Your task to perform on an android device: Open calendar and show me the first week of next month Image 0: 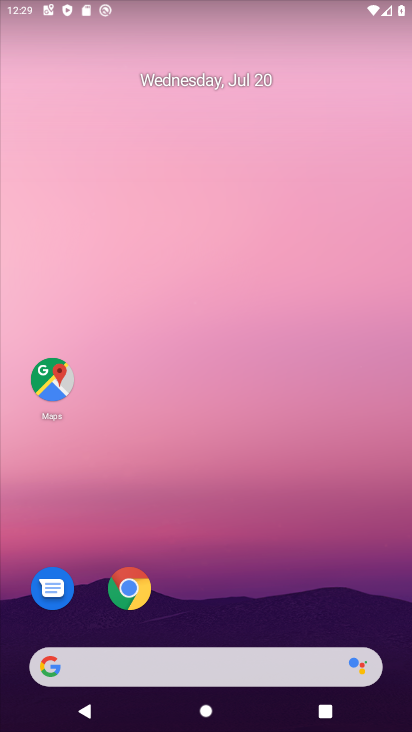
Step 0: drag from (193, 586) to (234, 17)
Your task to perform on an android device: Open calendar and show me the first week of next month Image 1: 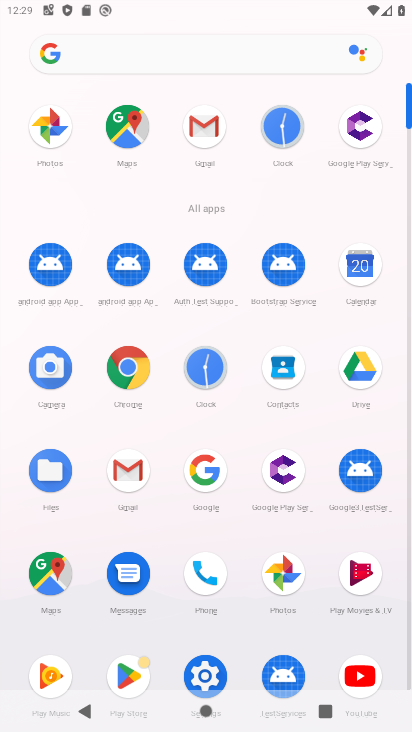
Step 1: click (358, 270)
Your task to perform on an android device: Open calendar and show me the first week of next month Image 2: 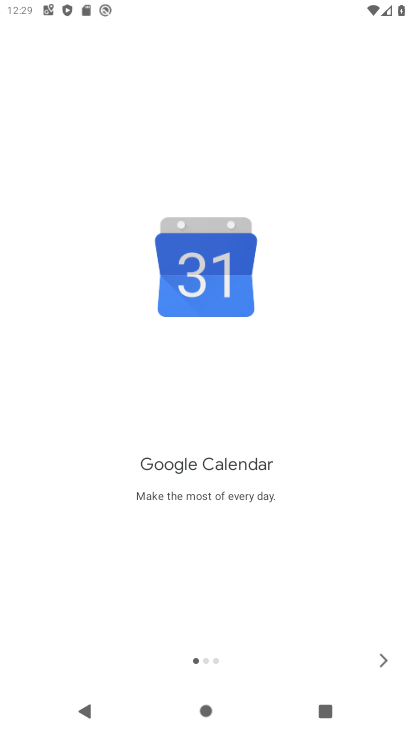
Step 2: click (384, 664)
Your task to perform on an android device: Open calendar and show me the first week of next month Image 3: 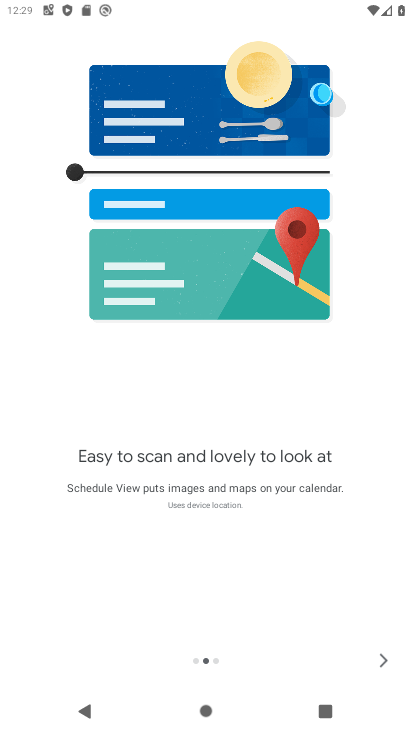
Step 3: click (384, 664)
Your task to perform on an android device: Open calendar and show me the first week of next month Image 4: 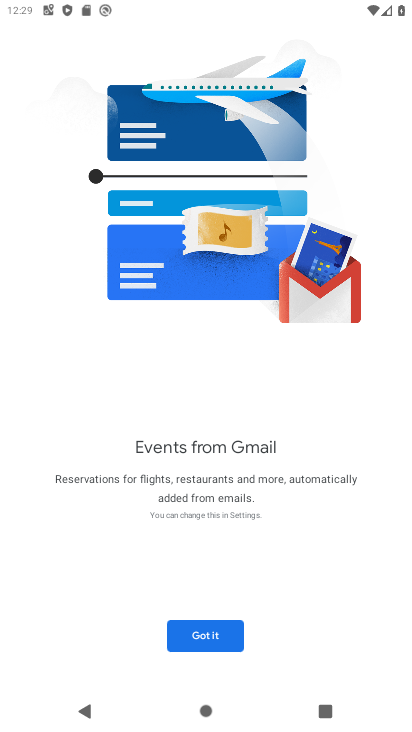
Step 4: click (219, 635)
Your task to perform on an android device: Open calendar and show me the first week of next month Image 5: 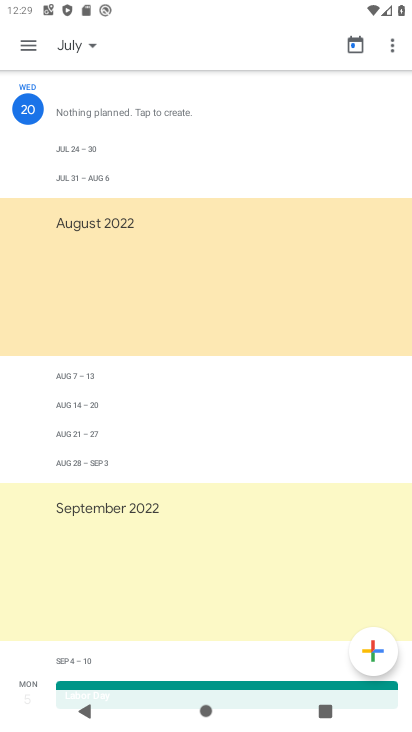
Step 5: click (25, 37)
Your task to perform on an android device: Open calendar and show me the first week of next month Image 6: 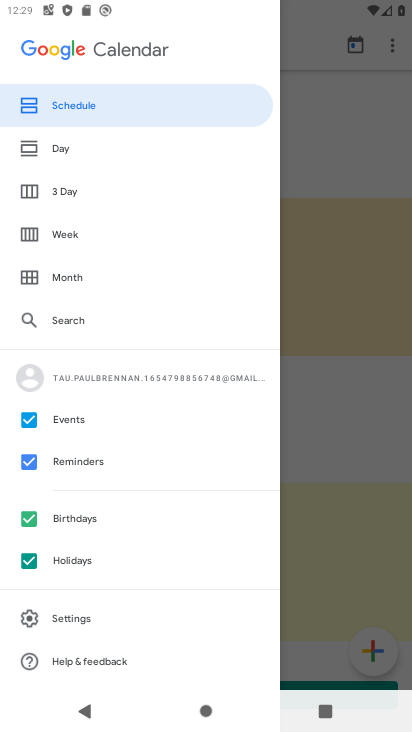
Step 6: click (71, 233)
Your task to perform on an android device: Open calendar and show me the first week of next month Image 7: 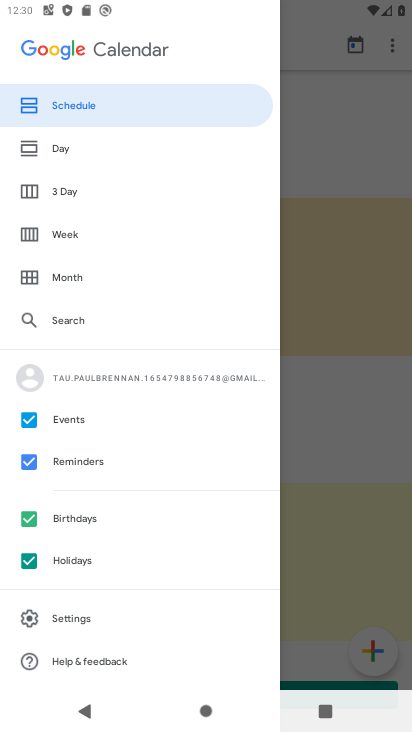
Step 7: click (61, 232)
Your task to perform on an android device: Open calendar and show me the first week of next month Image 8: 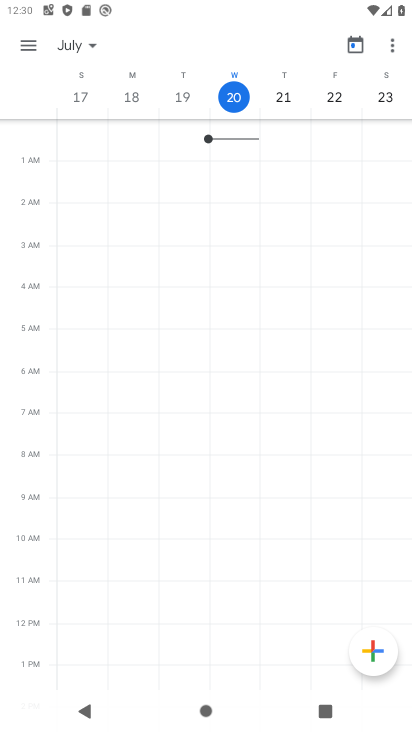
Step 8: click (95, 42)
Your task to perform on an android device: Open calendar and show me the first week of next month Image 9: 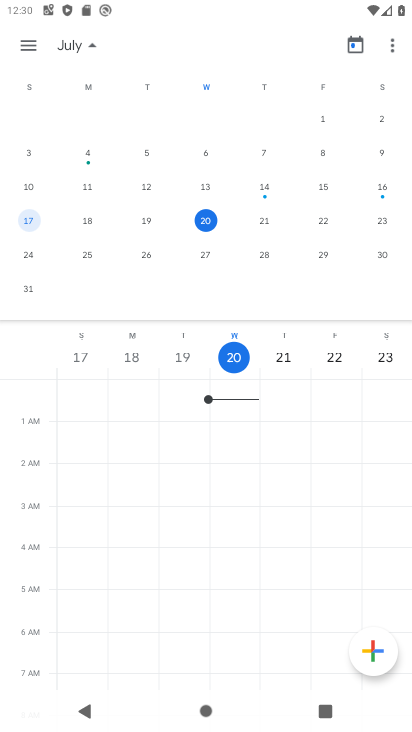
Step 9: drag from (361, 201) to (12, 184)
Your task to perform on an android device: Open calendar and show me the first week of next month Image 10: 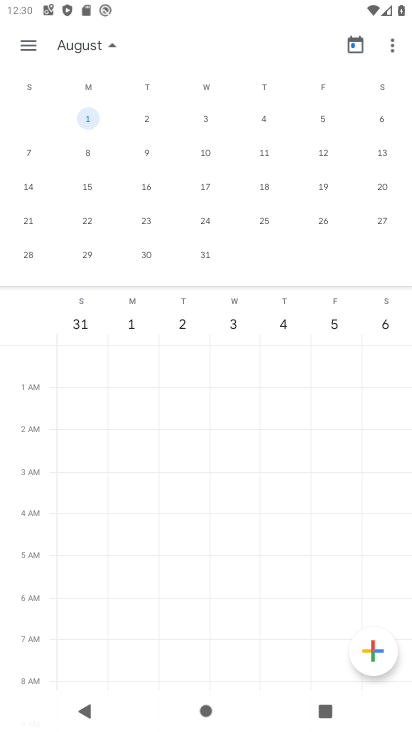
Step 10: click (89, 118)
Your task to perform on an android device: Open calendar and show me the first week of next month Image 11: 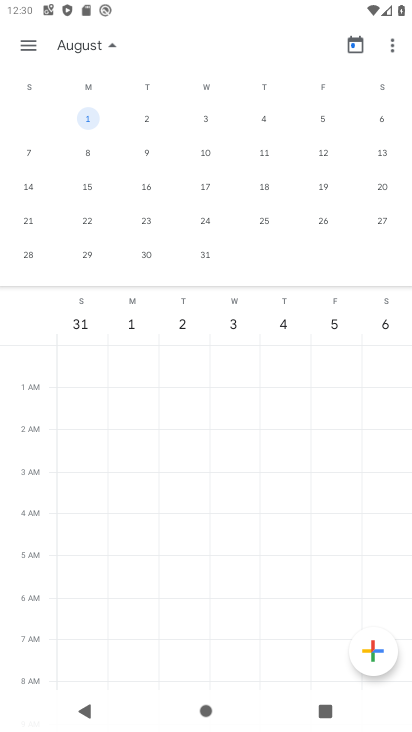
Step 11: task complete